Your task to perform on an android device: read, delete, or share a saved page in the chrome app Image 0: 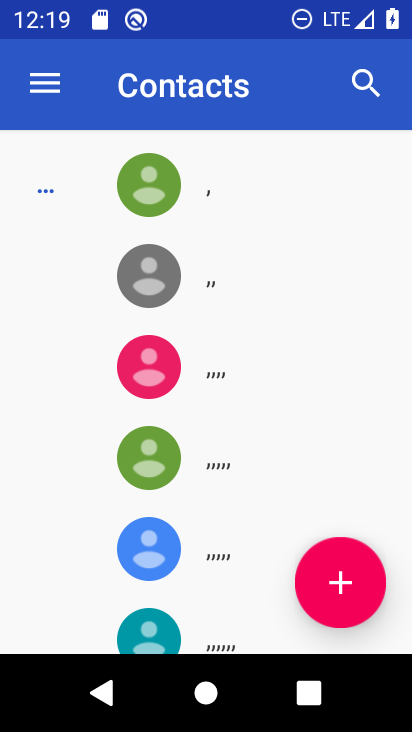
Step 0: press back button
Your task to perform on an android device: read, delete, or share a saved page in the chrome app Image 1: 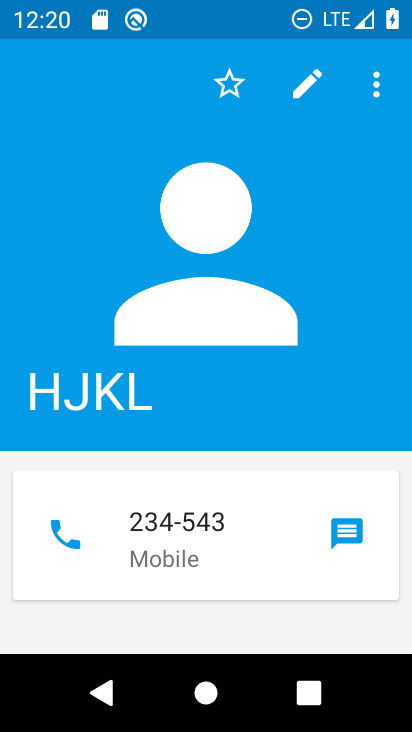
Step 1: press back button
Your task to perform on an android device: read, delete, or share a saved page in the chrome app Image 2: 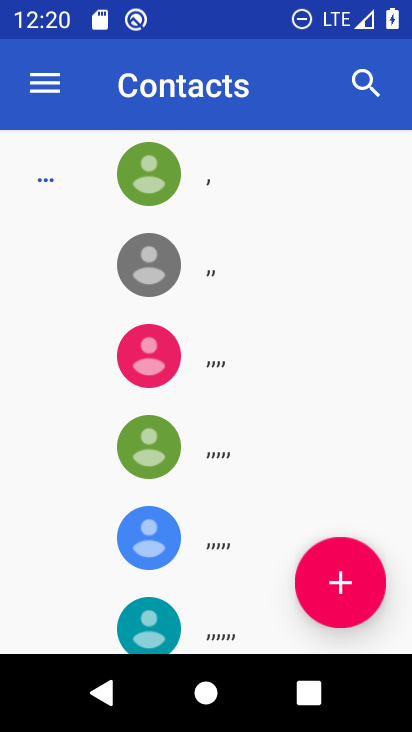
Step 2: press back button
Your task to perform on an android device: read, delete, or share a saved page in the chrome app Image 3: 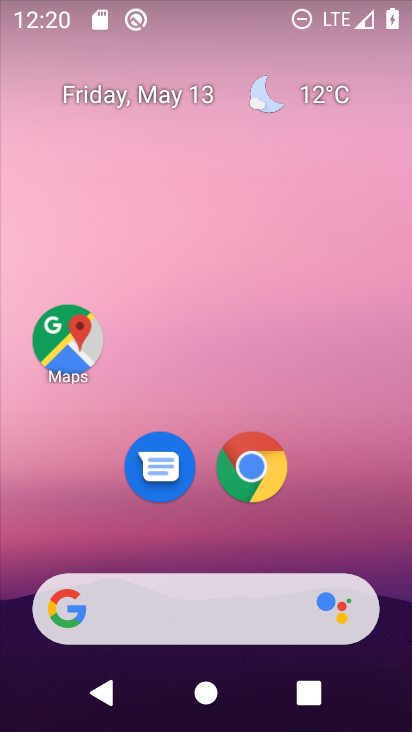
Step 3: drag from (364, 545) to (288, 19)
Your task to perform on an android device: read, delete, or share a saved page in the chrome app Image 4: 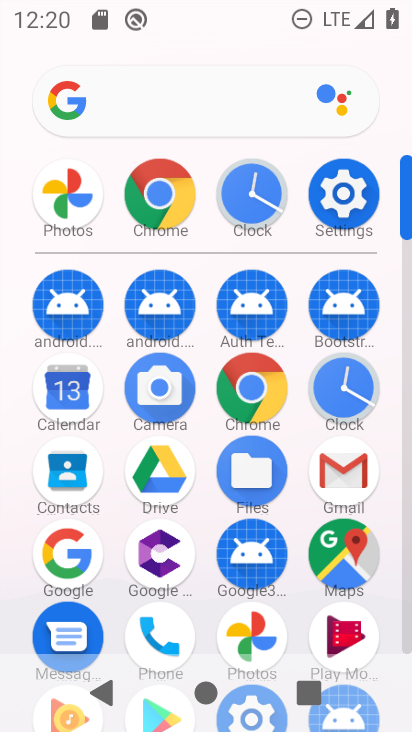
Step 4: click (252, 382)
Your task to perform on an android device: read, delete, or share a saved page in the chrome app Image 5: 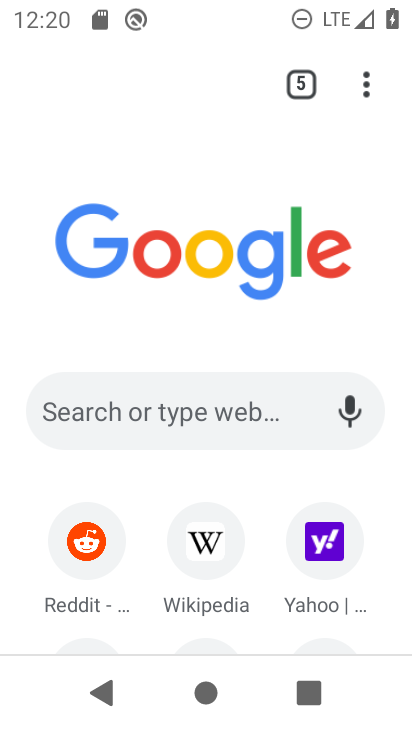
Step 5: click (146, 419)
Your task to perform on an android device: read, delete, or share a saved page in the chrome app Image 6: 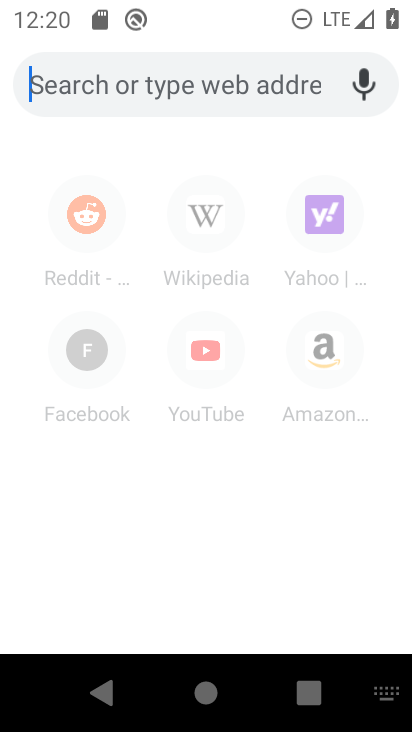
Step 6: task complete